Your task to perform on an android device: turn on showing notifications on the lock screen Image 0: 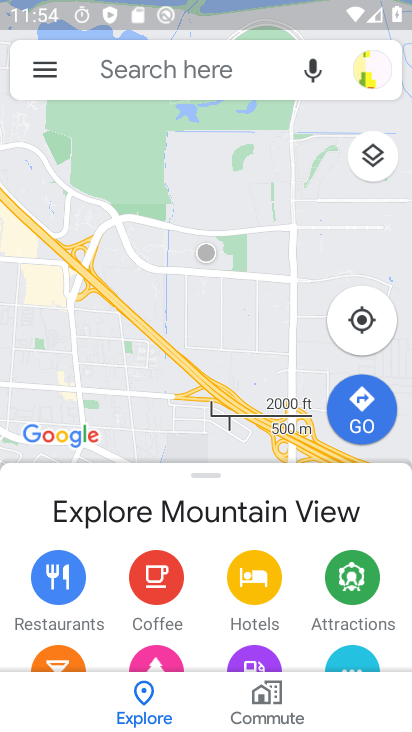
Step 0: press home button
Your task to perform on an android device: turn on showing notifications on the lock screen Image 1: 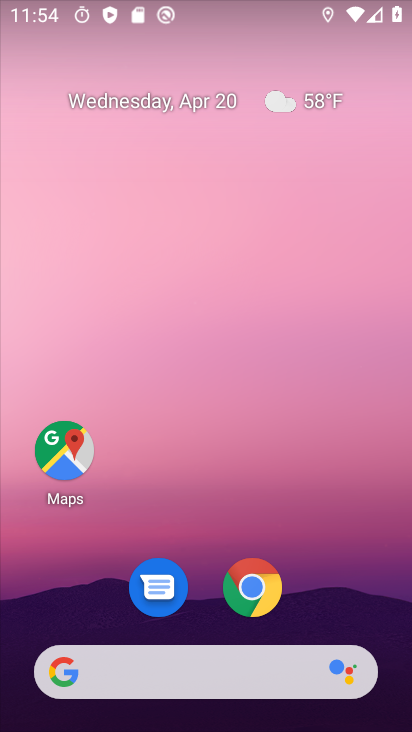
Step 1: drag from (202, 503) to (254, 244)
Your task to perform on an android device: turn on showing notifications on the lock screen Image 2: 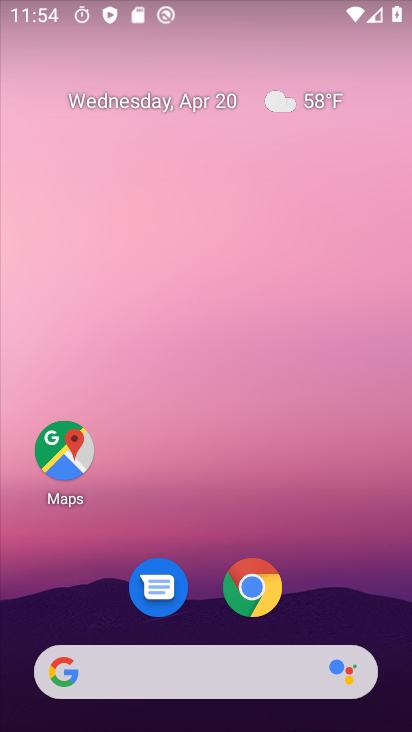
Step 2: drag from (209, 627) to (330, 0)
Your task to perform on an android device: turn on showing notifications on the lock screen Image 3: 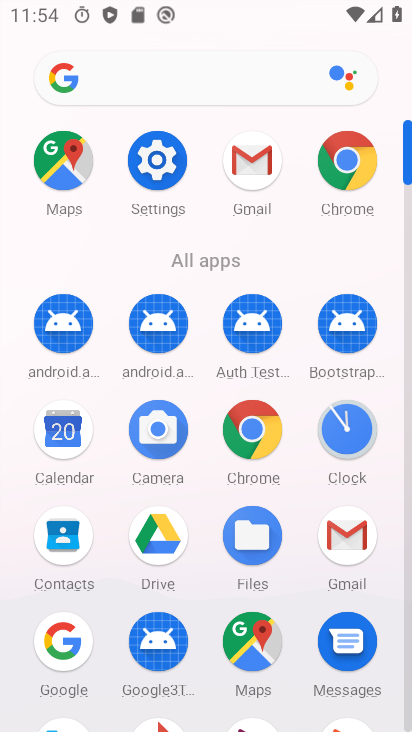
Step 3: click (154, 169)
Your task to perform on an android device: turn on showing notifications on the lock screen Image 4: 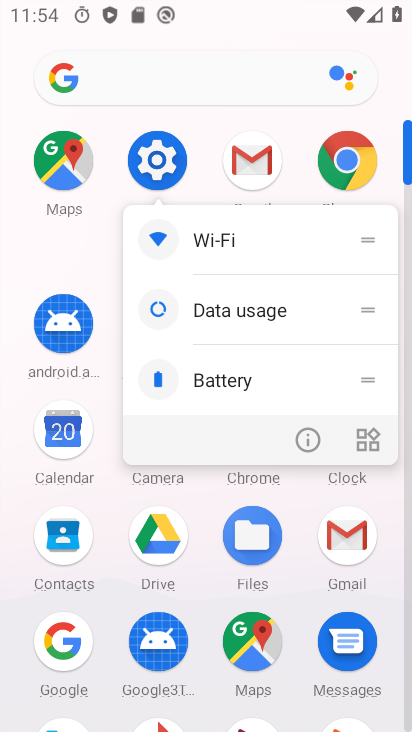
Step 4: click (150, 178)
Your task to perform on an android device: turn on showing notifications on the lock screen Image 5: 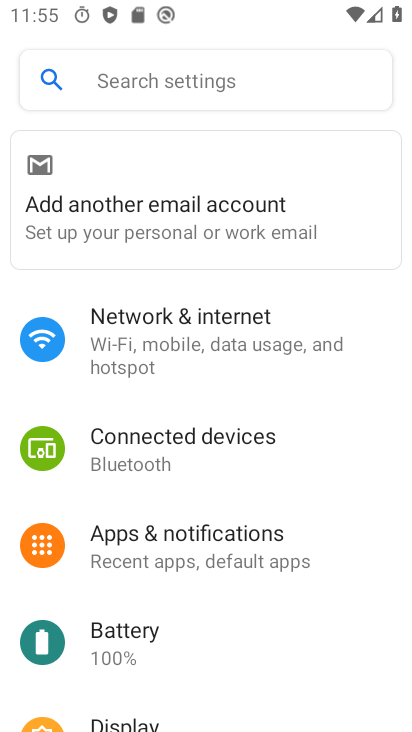
Step 5: click (184, 558)
Your task to perform on an android device: turn on showing notifications on the lock screen Image 6: 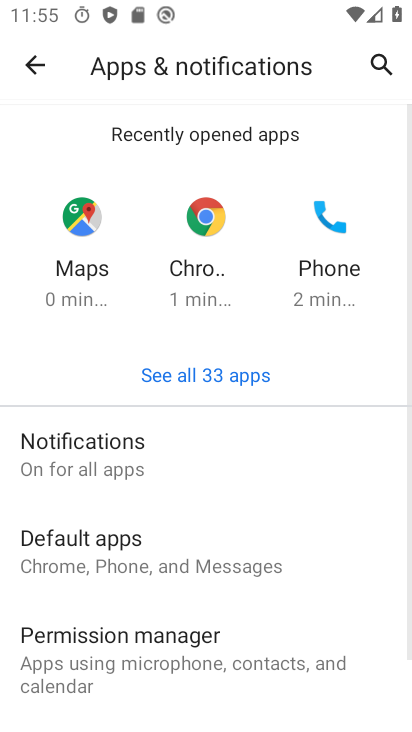
Step 6: click (106, 447)
Your task to perform on an android device: turn on showing notifications on the lock screen Image 7: 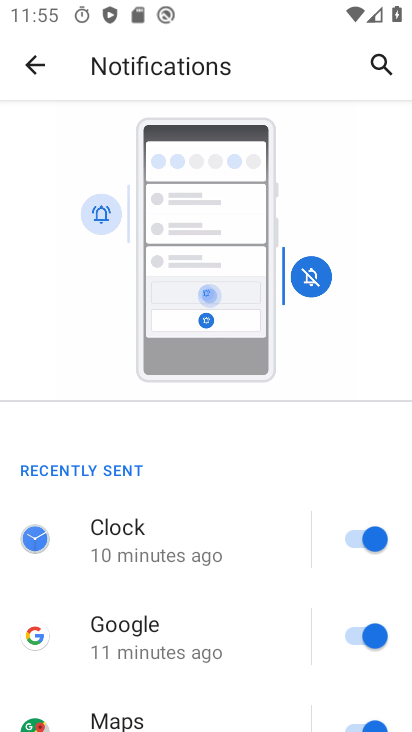
Step 7: drag from (110, 550) to (218, 100)
Your task to perform on an android device: turn on showing notifications on the lock screen Image 8: 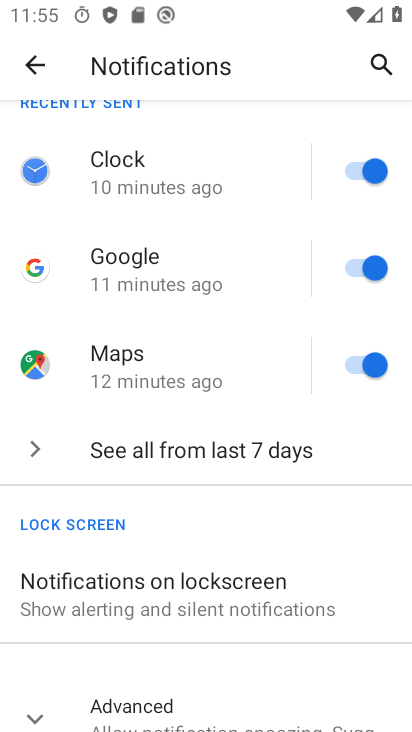
Step 8: drag from (178, 466) to (244, 130)
Your task to perform on an android device: turn on showing notifications on the lock screen Image 9: 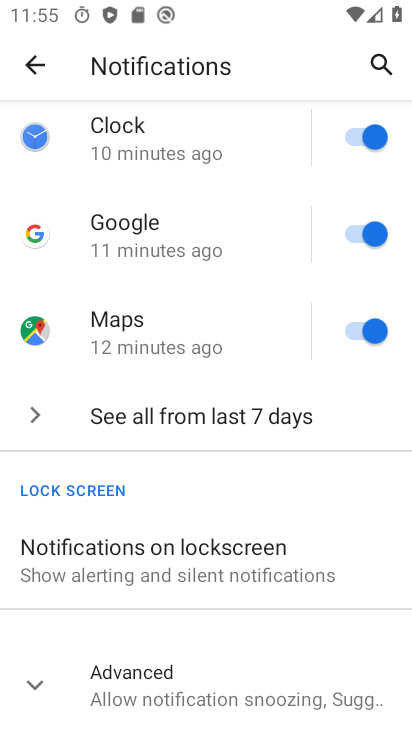
Step 9: click (128, 679)
Your task to perform on an android device: turn on showing notifications on the lock screen Image 10: 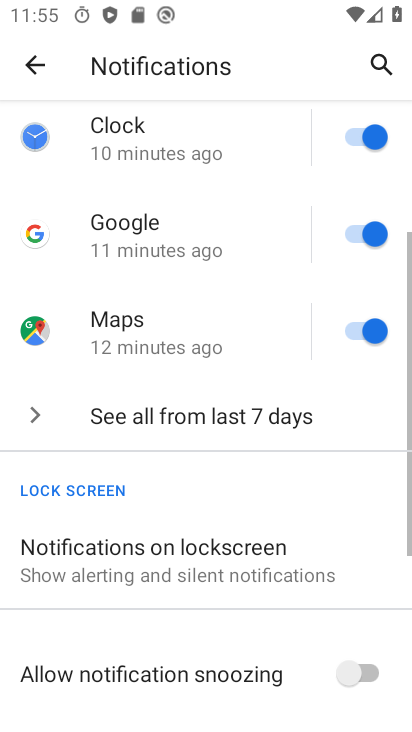
Step 10: task complete